Your task to perform on an android device: turn on data saver in the chrome app Image 0: 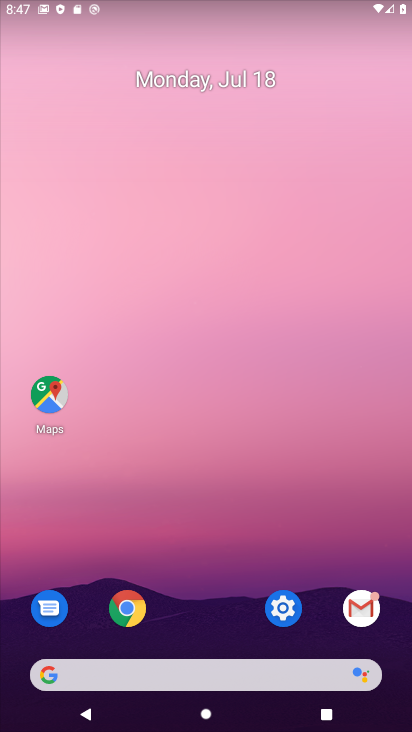
Step 0: press home button
Your task to perform on an android device: turn on data saver in the chrome app Image 1: 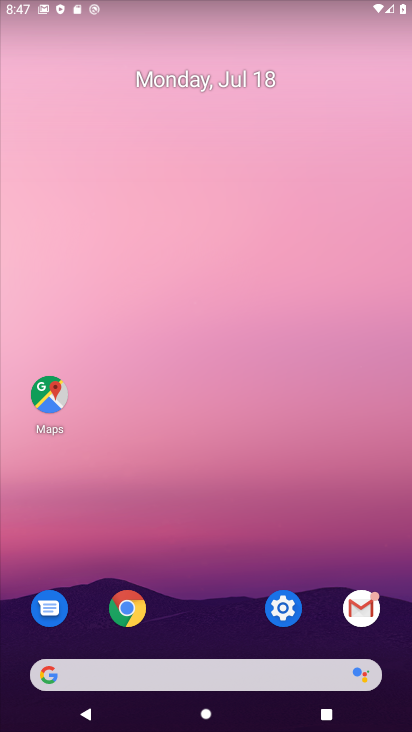
Step 1: click (140, 619)
Your task to perform on an android device: turn on data saver in the chrome app Image 2: 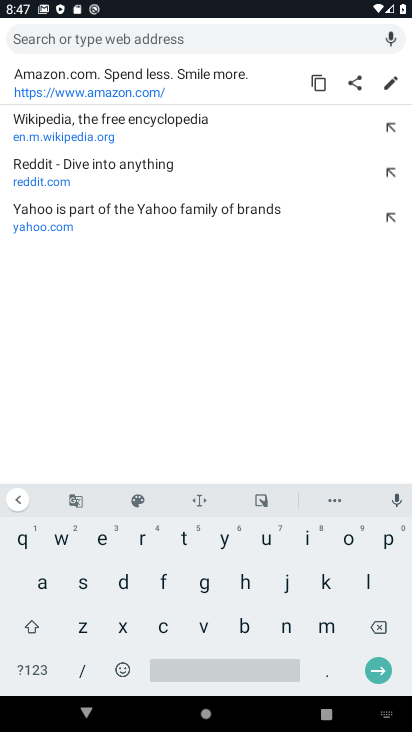
Step 2: press back button
Your task to perform on an android device: turn on data saver in the chrome app Image 3: 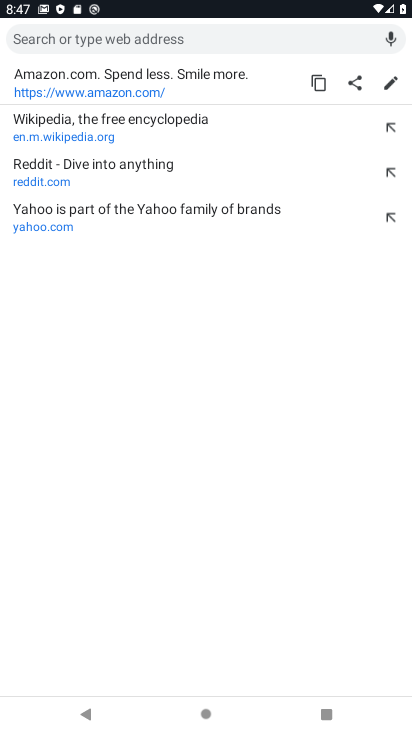
Step 3: press back button
Your task to perform on an android device: turn on data saver in the chrome app Image 4: 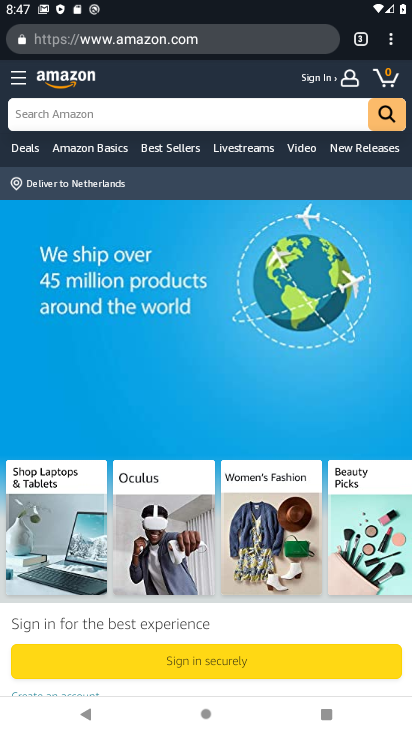
Step 4: click (385, 47)
Your task to perform on an android device: turn on data saver in the chrome app Image 5: 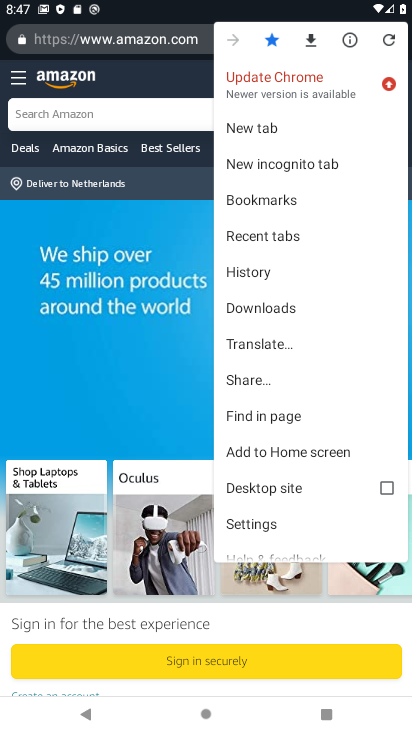
Step 5: click (251, 519)
Your task to perform on an android device: turn on data saver in the chrome app Image 6: 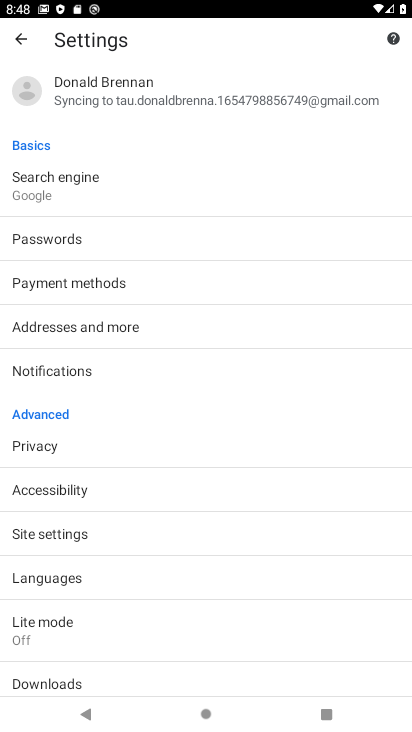
Step 6: click (67, 617)
Your task to perform on an android device: turn on data saver in the chrome app Image 7: 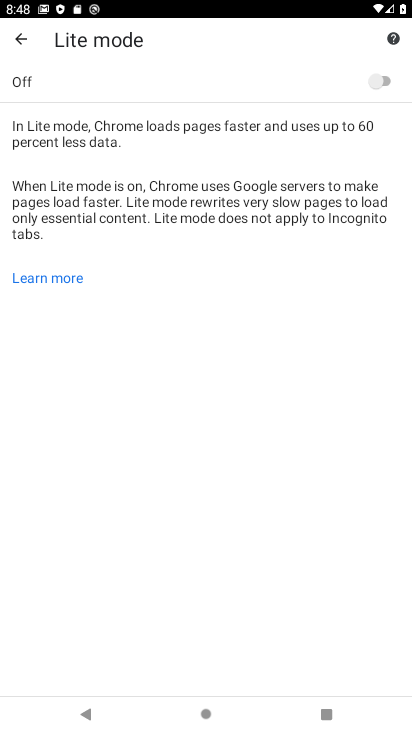
Step 7: click (391, 67)
Your task to perform on an android device: turn on data saver in the chrome app Image 8: 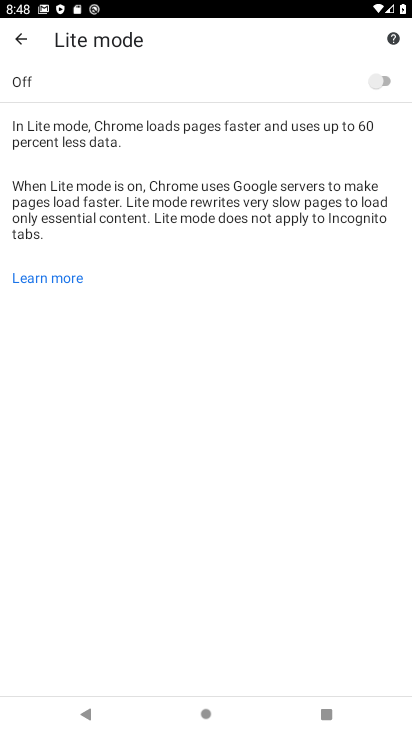
Step 8: click (392, 83)
Your task to perform on an android device: turn on data saver in the chrome app Image 9: 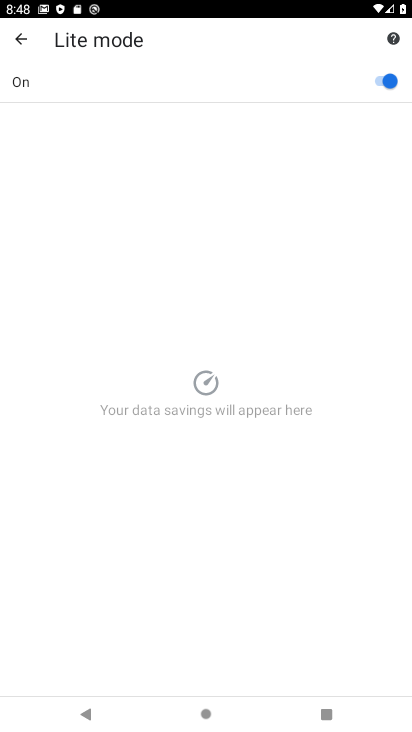
Step 9: task complete